Your task to perform on an android device: Go to Yahoo.com Image 0: 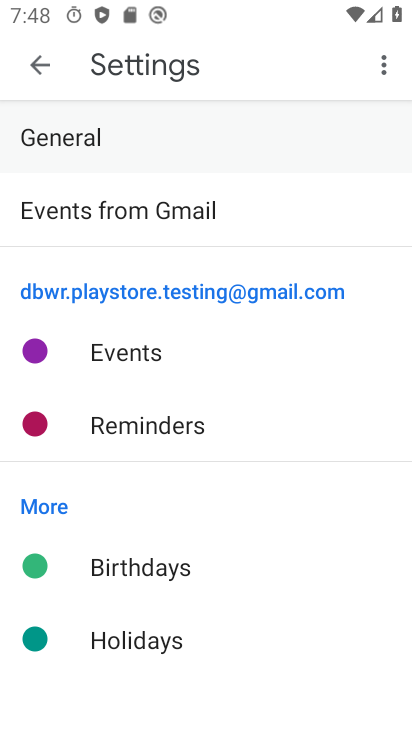
Step 0: press home button
Your task to perform on an android device: Go to Yahoo.com Image 1: 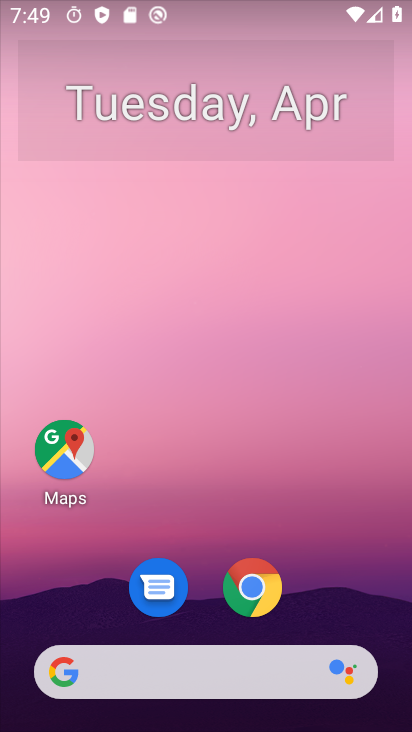
Step 1: click (268, 608)
Your task to perform on an android device: Go to Yahoo.com Image 2: 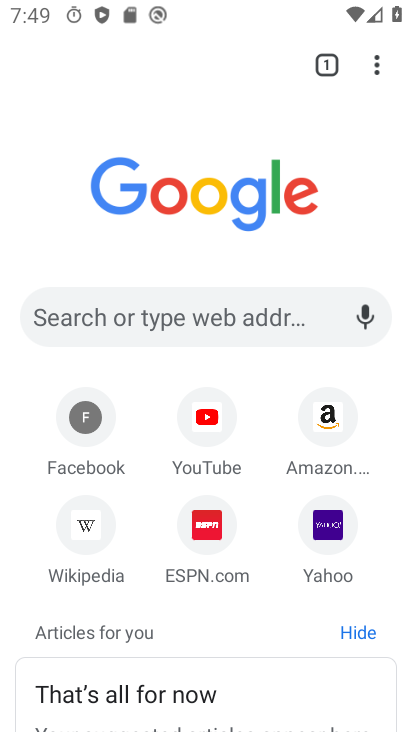
Step 2: click (313, 513)
Your task to perform on an android device: Go to Yahoo.com Image 3: 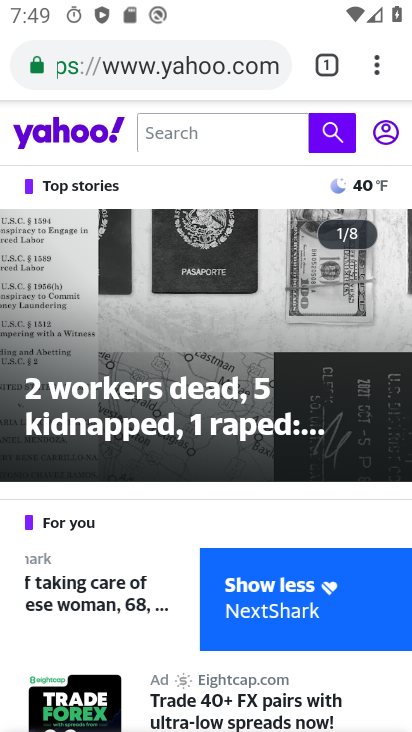
Step 3: task complete